Your task to perform on an android device: turn off smart reply in the gmail app Image 0: 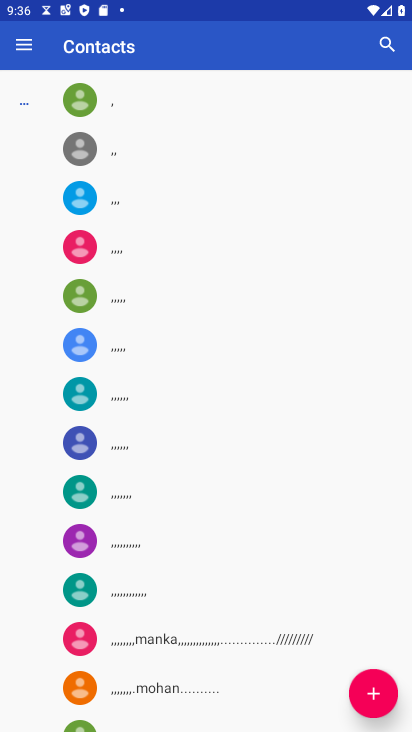
Step 0: press home button
Your task to perform on an android device: turn off smart reply in the gmail app Image 1: 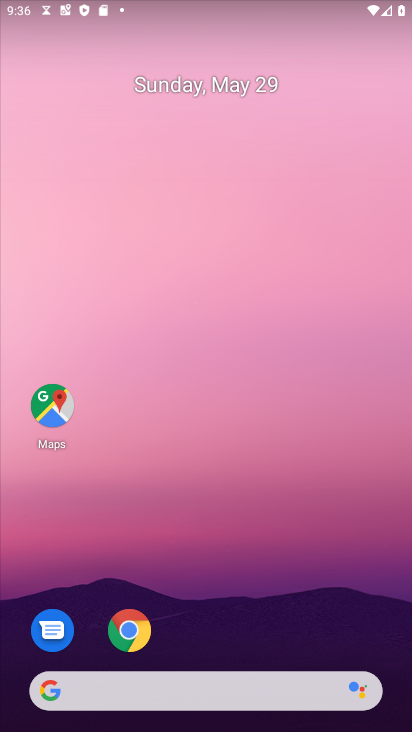
Step 1: drag from (246, 592) to (258, 388)
Your task to perform on an android device: turn off smart reply in the gmail app Image 2: 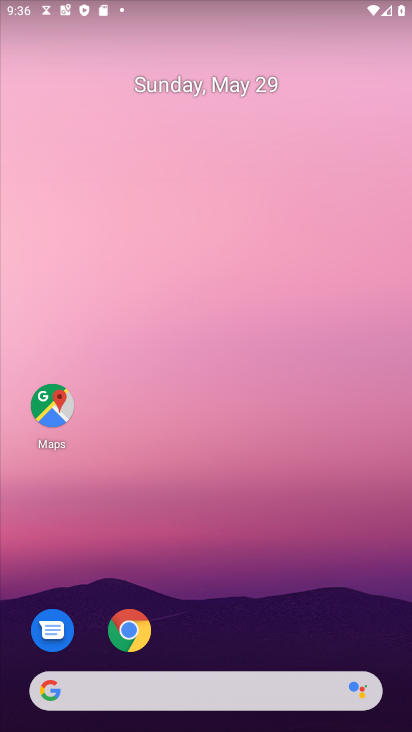
Step 2: drag from (227, 603) to (217, 130)
Your task to perform on an android device: turn off smart reply in the gmail app Image 3: 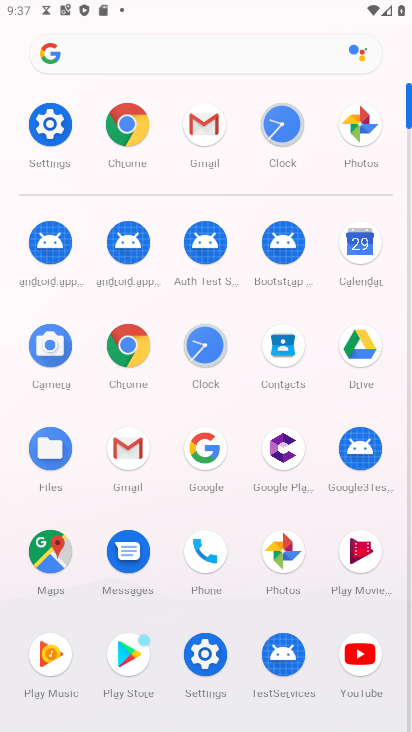
Step 3: click (213, 116)
Your task to perform on an android device: turn off smart reply in the gmail app Image 4: 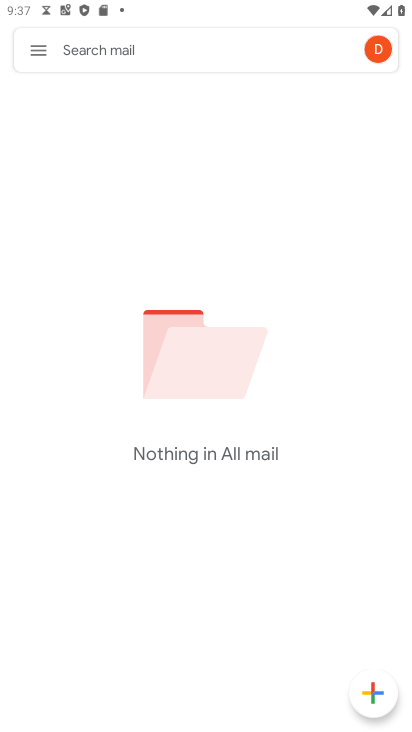
Step 4: click (42, 47)
Your task to perform on an android device: turn off smart reply in the gmail app Image 5: 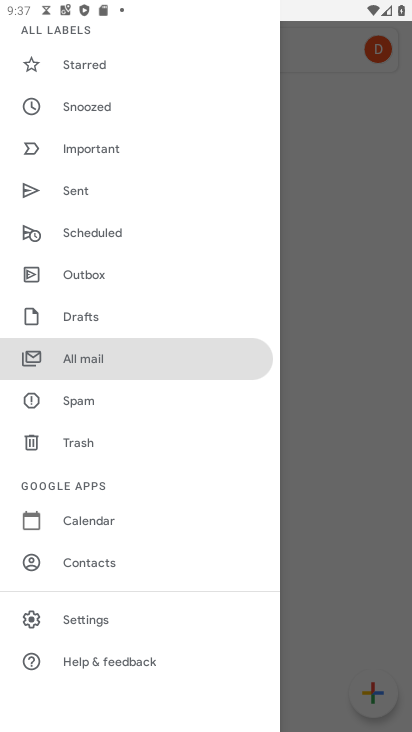
Step 5: click (81, 615)
Your task to perform on an android device: turn off smart reply in the gmail app Image 6: 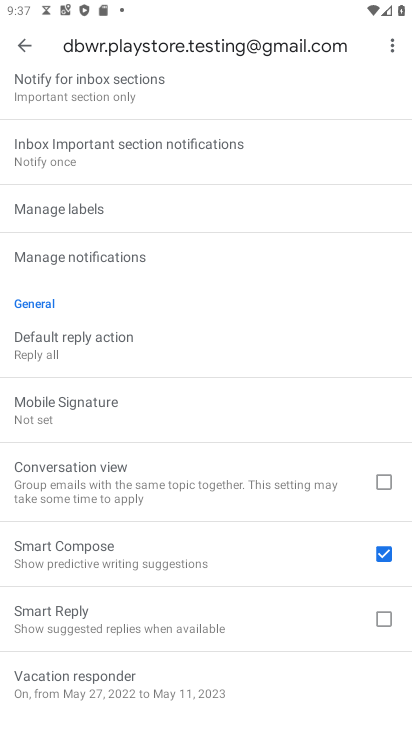
Step 6: task complete